Your task to perform on an android device: read, delete, or share a saved page in the chrome app Image 0: 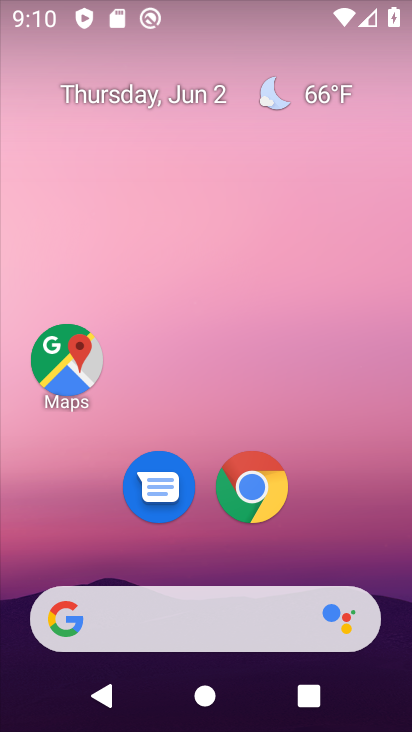
Step 0: click (247, 483)
Your task to perform on an android device: read, delete, or share a saved page in the chrome app Image 1: 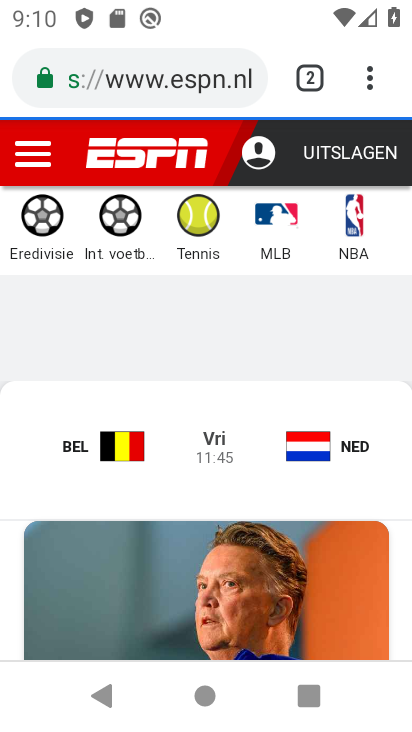
Step 1: click (368, 87)
Your task to perform on an android device: read, delete, or share a saved page in the chrome app Image 2: 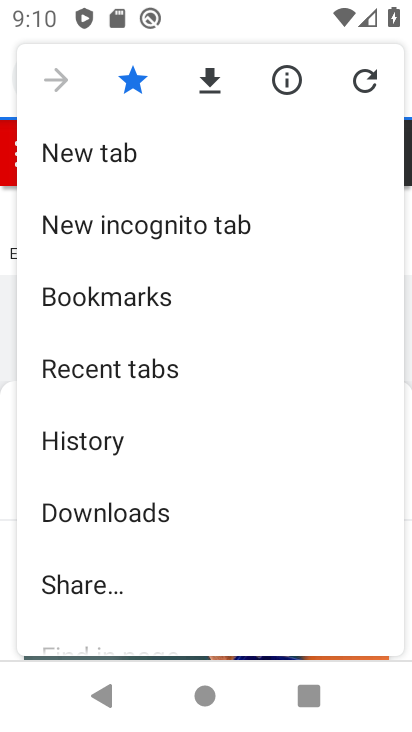
Step 2: drag from (175, 604) to (175, 224)
Your task to perform on an android device: read, delete, or share a saved page in the chrome app Image 3: 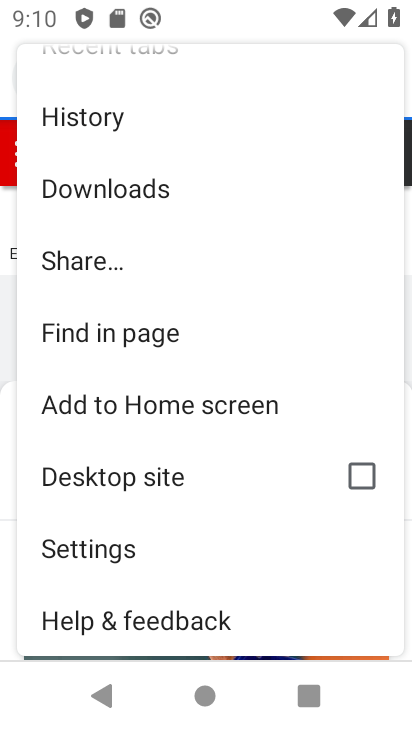
Step 3: click (107, 548)
Your task to perform on an android device: read, delete, or share a saved page in the chrome app Image 4: 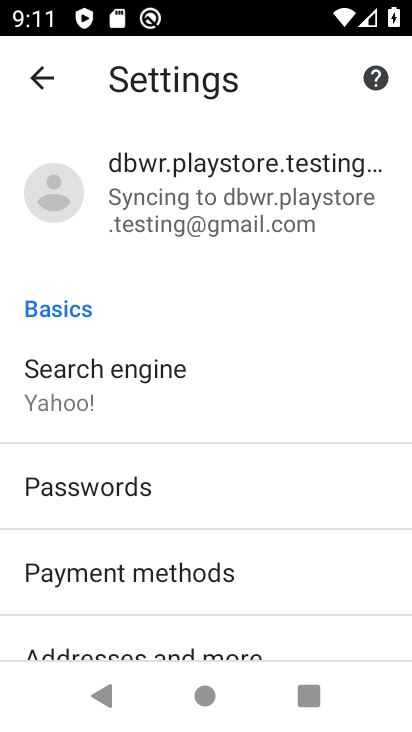
Step 4: drag from (130, 639) to (137, 395)
Your task to perform on an android device: read, delete, or share a saved page in the chrome app Image 5: 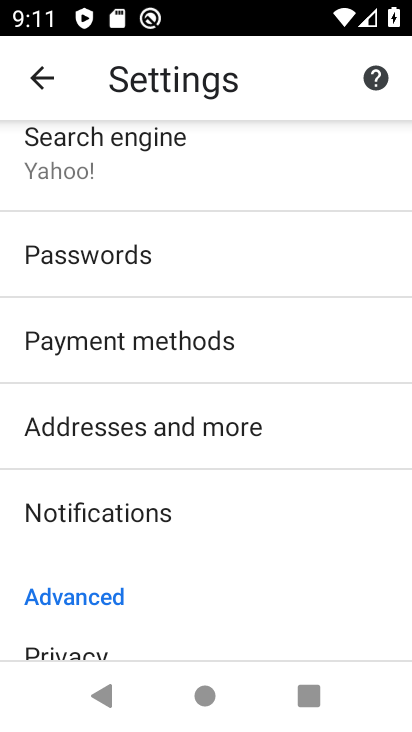
Step 5: click (40, 72)
Your task to perform on an android device: read, delete, or share a saved page in the chrome app Image 6: 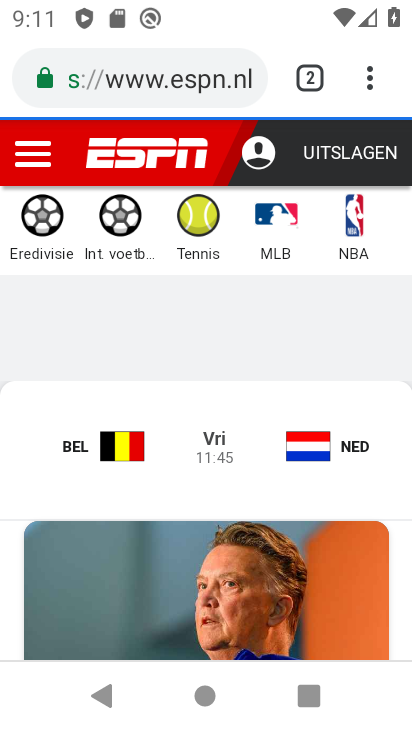
Step 6: click (369, 83)
Your task to perform on an android device: read, delete, or share a saved page in the chrome app Image 7: 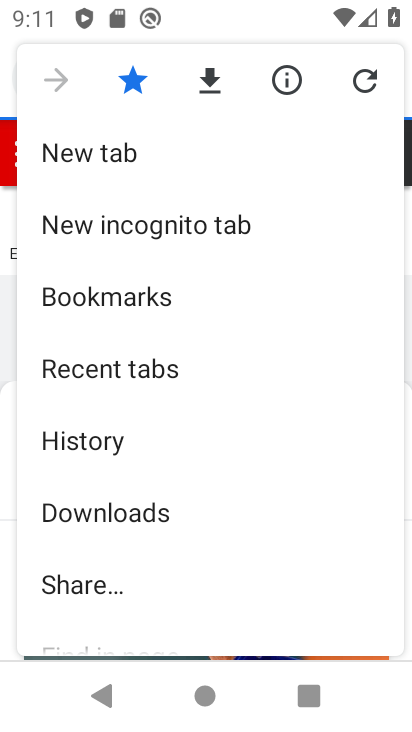
Step 7: click (134, 510)
Your task to perform on an android device: read, delete, or share a saved page in the chrome app Image 8: 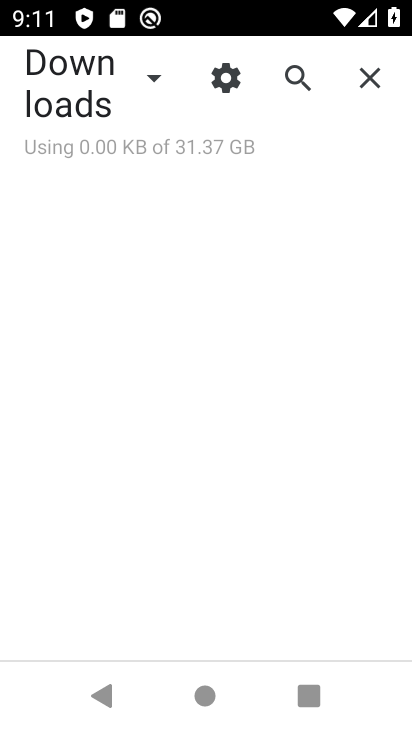
Step 8: click (154, 78)
Your task to perform on an android device: read, delete, or share a saved page in the chrome app Image 9: 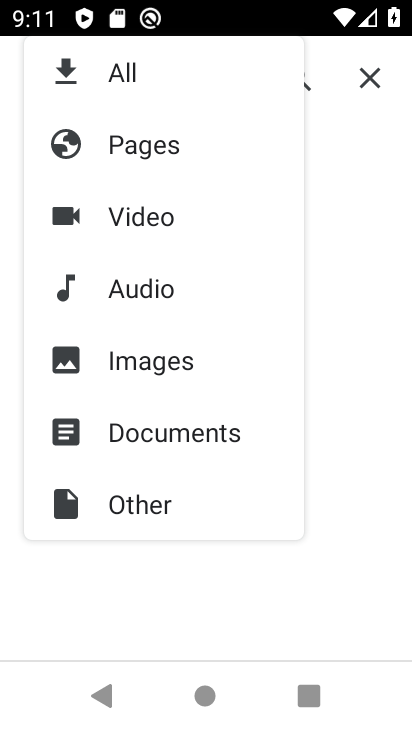
Step 9: click (149, 148)
Your task to perform on an android device: read, delete, or share a saved page in the chrome app Image 10: 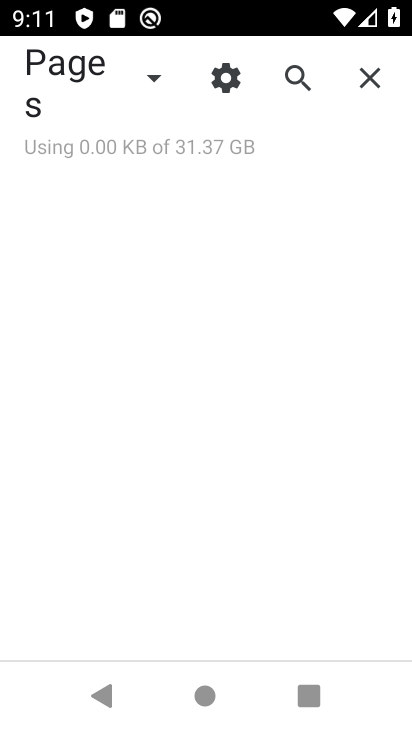
Step 10: task complete